Your task to perform on an android device: Open Google Maps and go to "Timeline" Image 0: 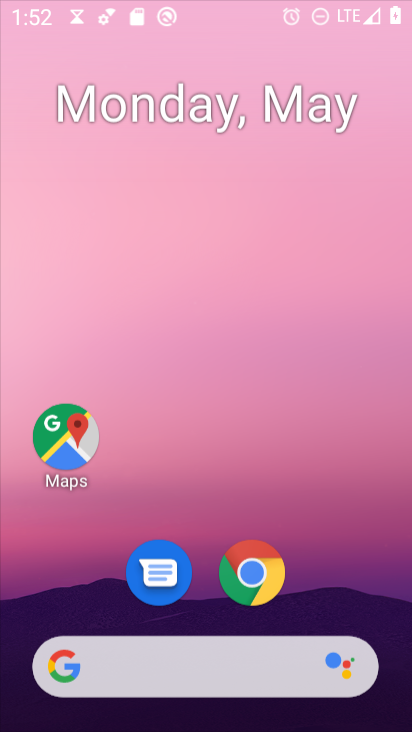
Step 0: click (286, 6)
Your task to perform on an android device: Open Google Maps and go to "Timeline" Image 1: 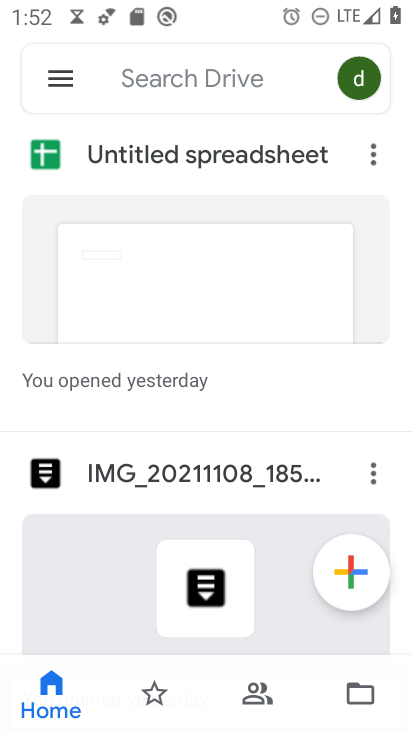
Step 1: press home button
Your task to perform on an android device: Open Google Maps and go to "Timeline" Image 2: 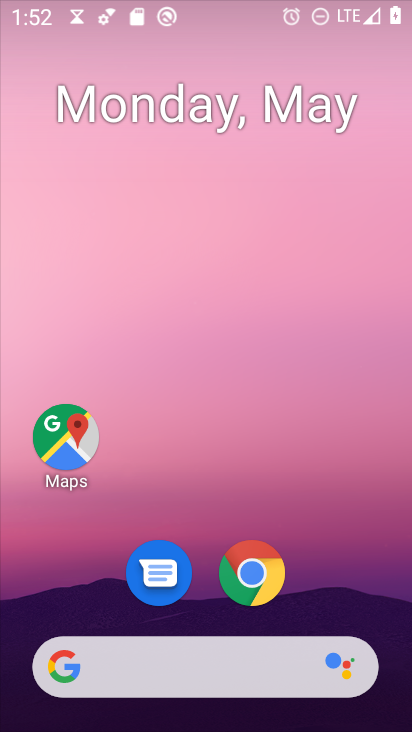
Step 2: drag from (199, 575) to (239, 38)
Your task to perform on an android device: Open Google Maps and go to "Timeline" Image 3: 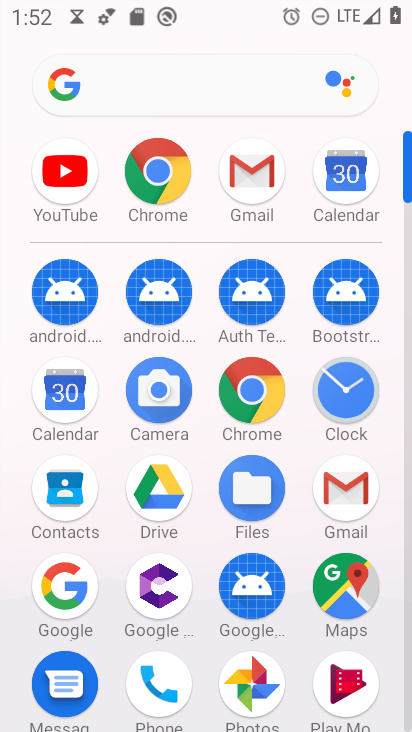
Step 3: click (348, 580)
Your task to perform on an android device: Open Google Maps and go to "Timeline" Image 4: 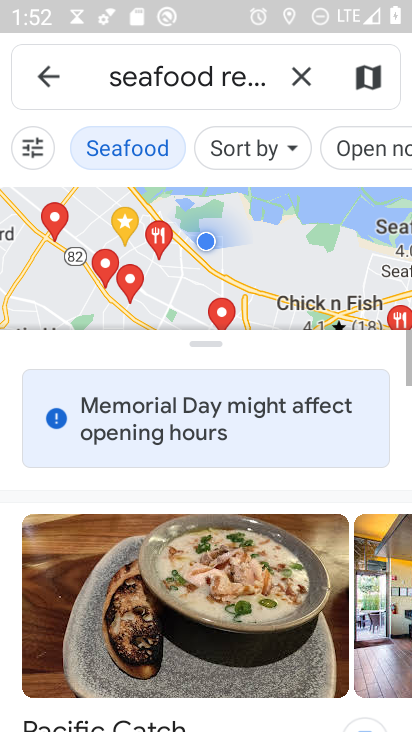
Step 4: press back button
Your task to perform on an android device: Open Google Maps and go to "Timeline" Image 5: 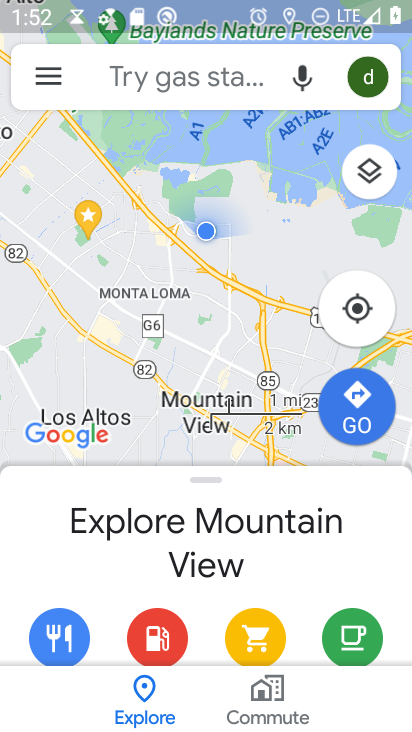
Step 5: click (49, 95)
Your task to perform on an android device: Open Google Maps and go to "Timeline" Image 6: 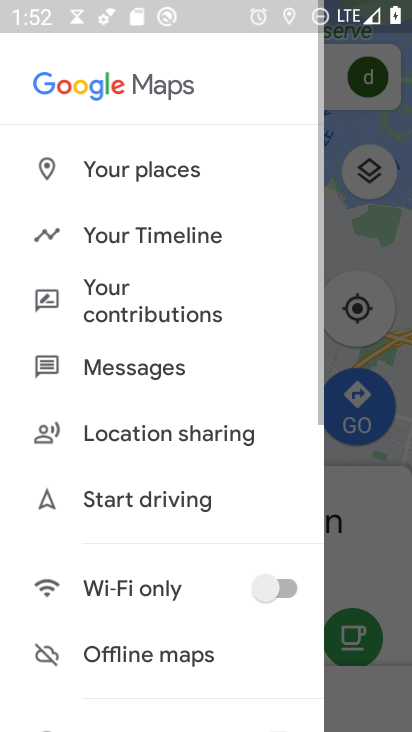
Step 6: click (95, 225)
Your task to perform on an android device: Open Google Maps and go to "Timeline" Image 7: 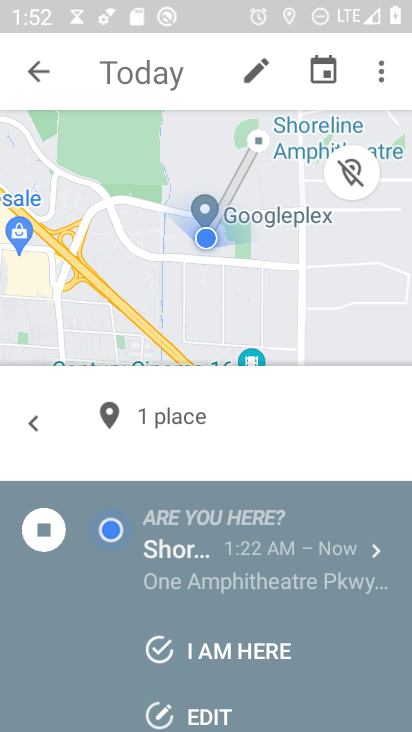
Step 7: task complete